Your task to perform on an android device: turn off javascript in the chrome app Image 0: 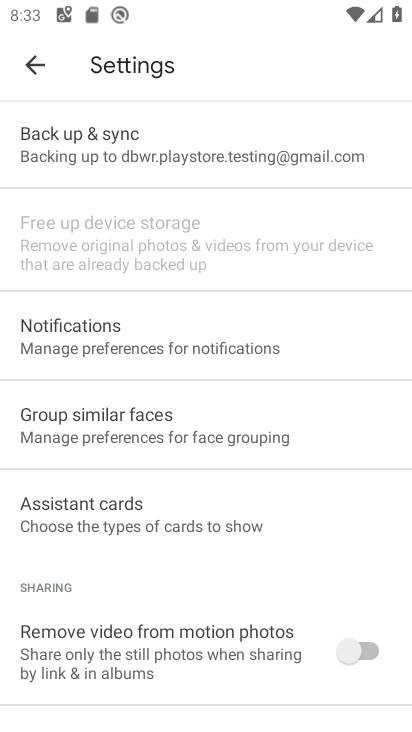
Step 0: press home button
Your task to perform on an android device: turn off javascript in the chrome app Image 1: 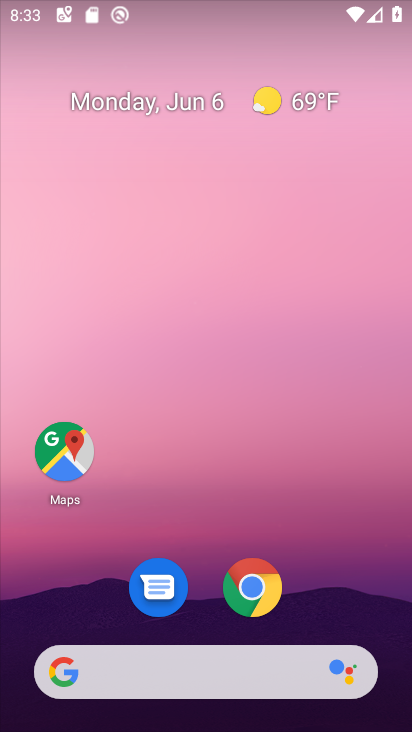
Step 1: drag from (356, 597) to (350, 145)
Your task to perform on an android device: turn off javascript in the chrome app Image 2: 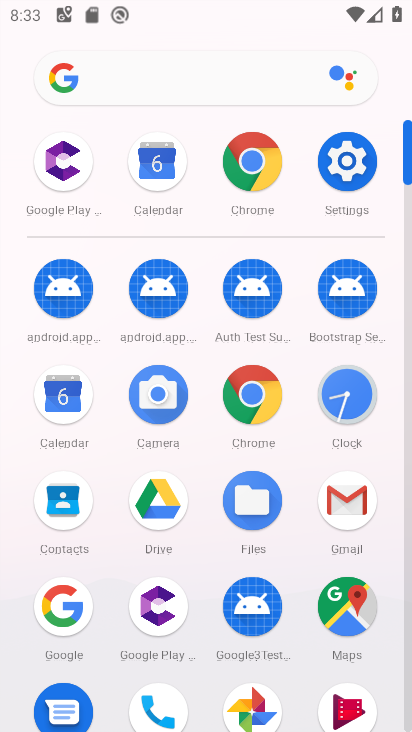
Step 2: click (253, 419)
Your task to perform on an android device: turn off javascript in the chrome app Image 3: 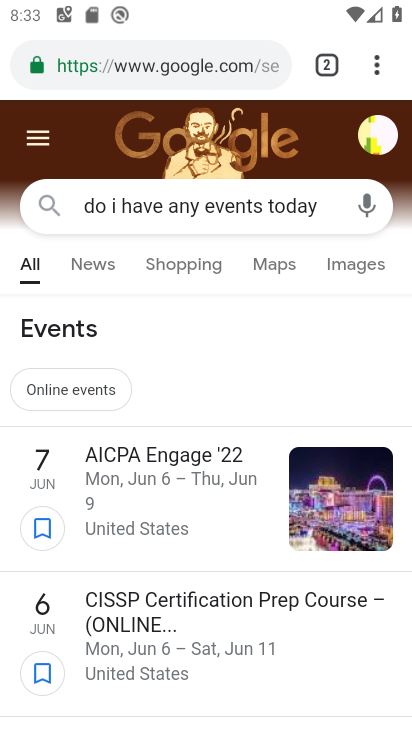
Step 3: press home button
Your task to perform on an android device: turn off javascript in the chrome app Image 4: 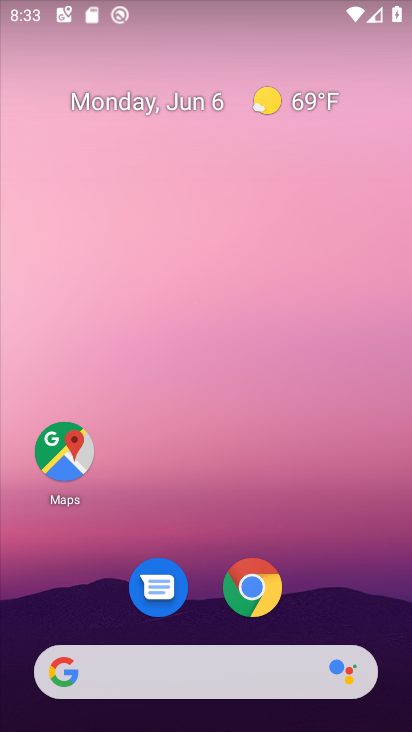
Step 4: drag from (336, 523) to (294, 118)
Your task to perform on an android device: turn off javascript in the chrome app Image 5: 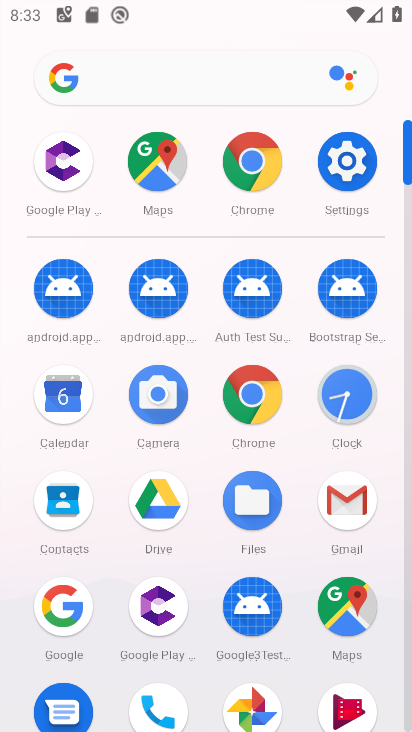
Step 5: click (270, 398)
Your task to perform on an android device: turn off javascript in the chrome app Image 6: 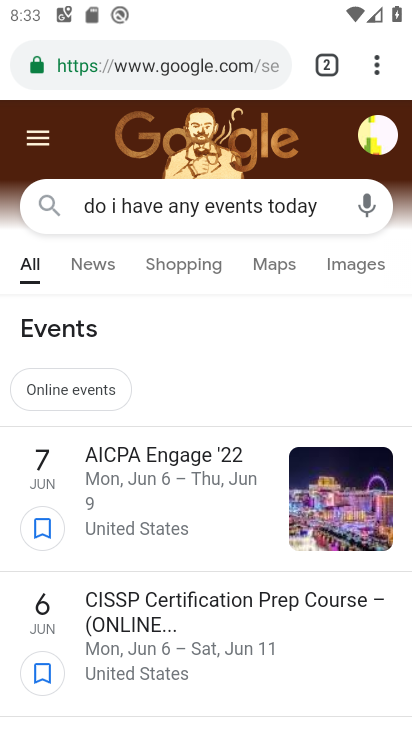
Step 6: drag from (220, 666) to (270, 392)
Your task to perform on an android device: turn off javascript in the chrome app Image 7: 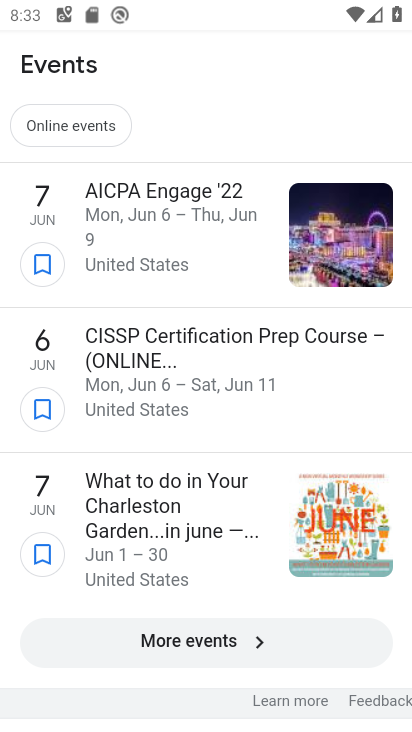
Step 7: drag from (160, 176) to (224, 546)
Your task to perform on an android device: turn off javascript in the chrome app Image 8: 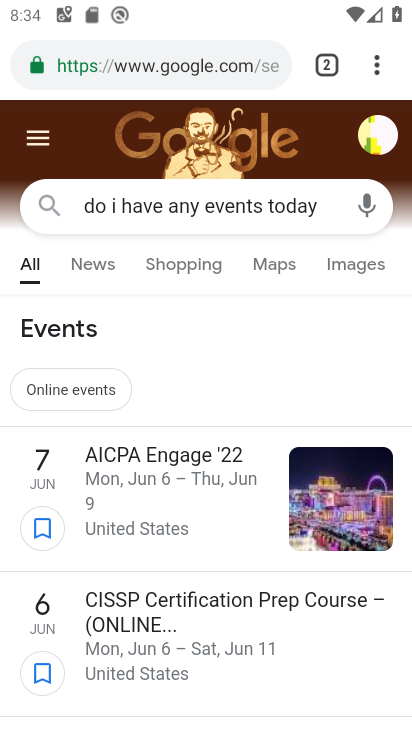
Step 8: drag from (389, 62) to (203, 643)
Your task to perform on an android device: turn off javascript in the chrome app Image 9: 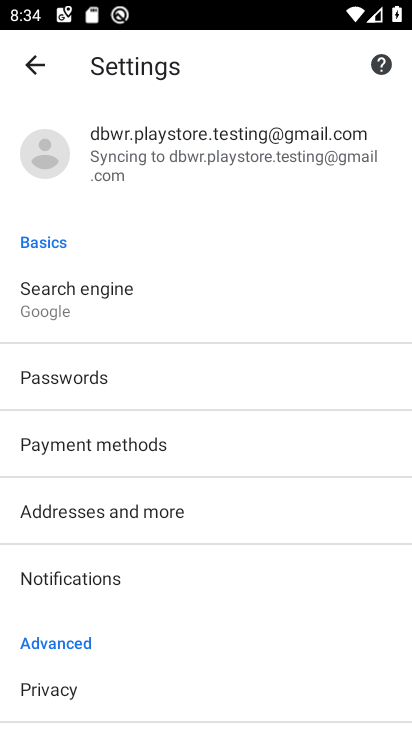
Step 9: drag from (209, 633) to (301, 273)
Your task to perform on an android device: turn off javascript in the chrome app Image 10: 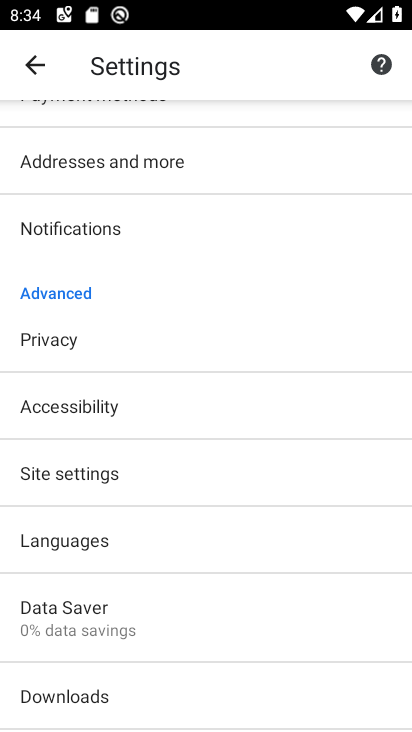
Step 10: click (178, 480)
Your task to perform on an android device: turn off javascript in the chrome app Image 11: 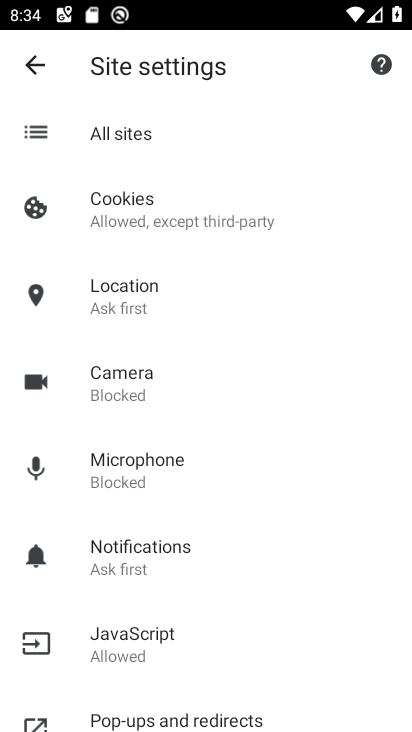
Step 11: click (138, 642)
Your task to perform on an android device: turn off javascript in the chrome app Image 12: 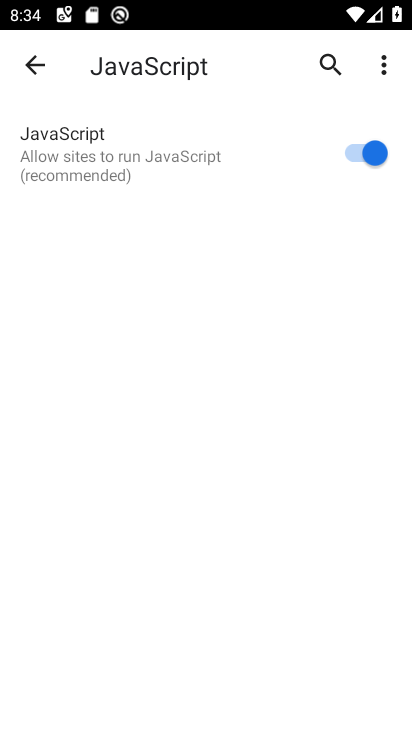
Step 12: click (352, 155)
Your task to perform on an android device: turn off javascript in the chrome app Image 13: 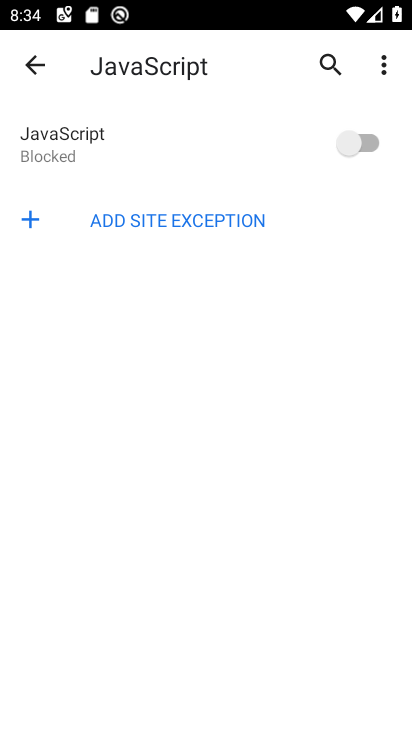
Step 13: task complete